Your task to perform on an android device: open wifi settings Image 0: 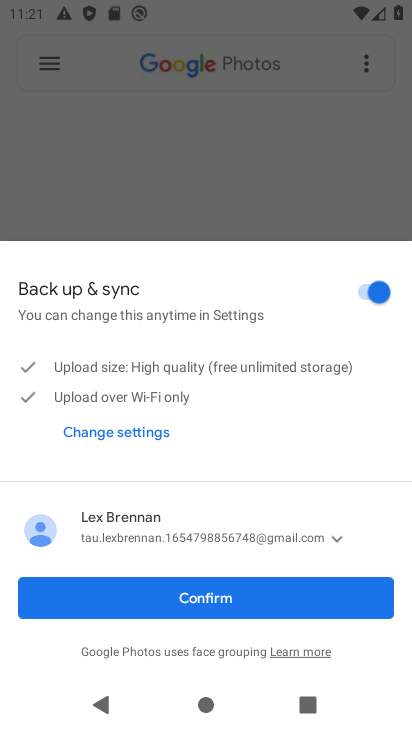
Step 0: press home button
Your task to perform on an android device: open wifi settings Image 1: 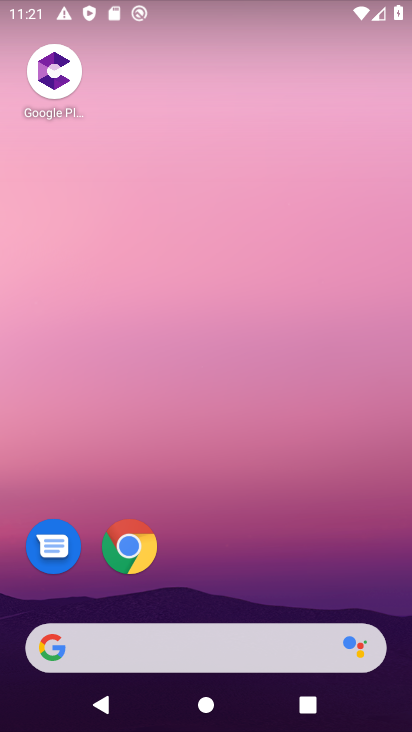
Step 1: drag from (229, 577) to (203, 48)
Your task to perform on an android device: open wifi settings Image 2: 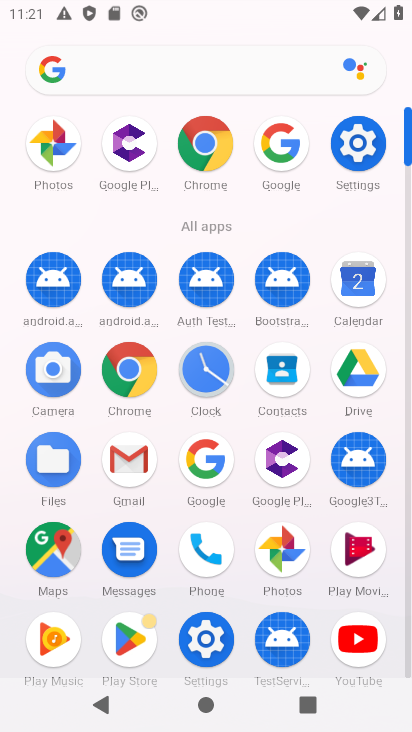
Step 2: click (349, 146)
Your task to perform on an android device: open wifi settings Image 3: 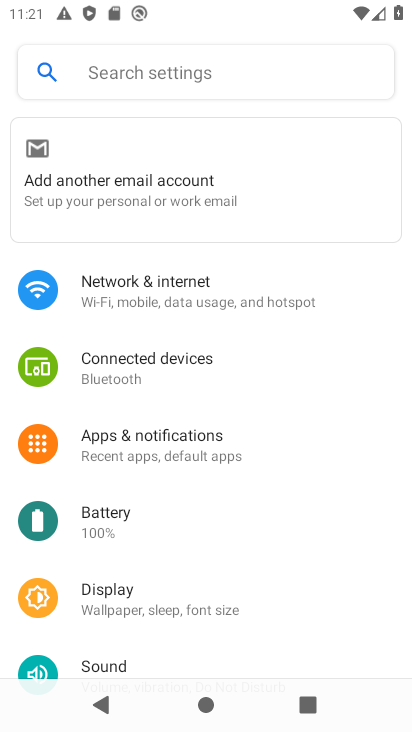
Step 3: click (191, 289)
Your task to perform on an android device: open wifi settings Image 4: 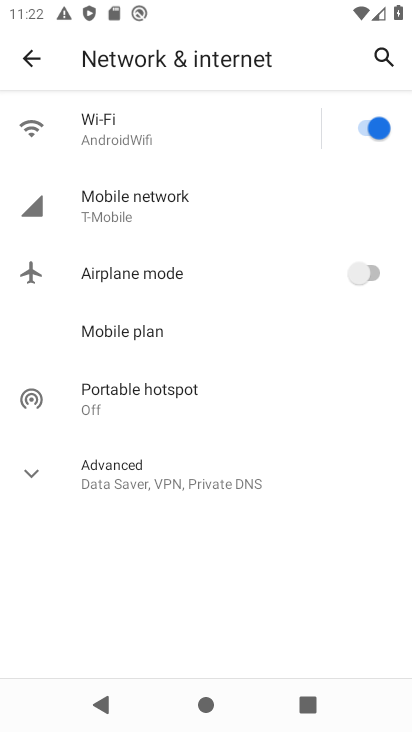
Step 4: click (127, 140)
Your task to perform on an android device: open wifi settings Image 5: 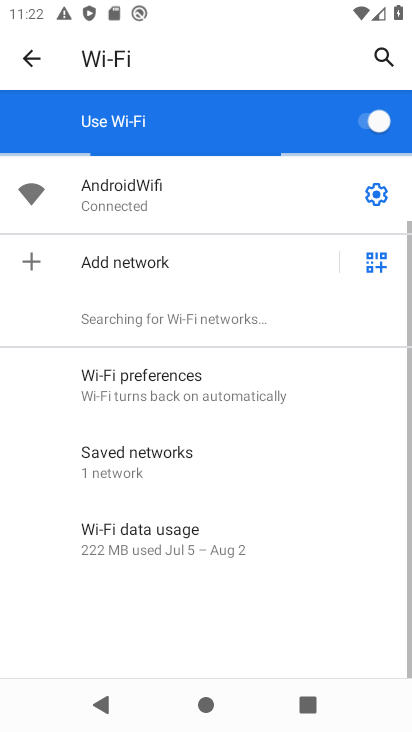
Step 5: task complete